Your task to perform on an android device: Search for Italian restaurants on Maps Image 0: 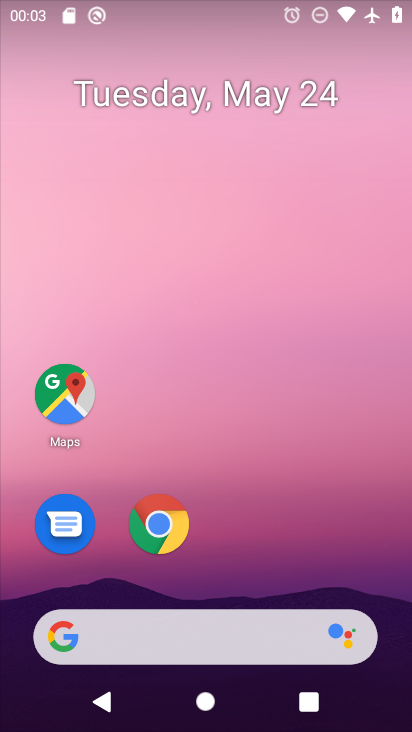
Step 0: click (80, 406)
Your task to perform on an android device: Search for Italian restaurants on Maps Image 1: 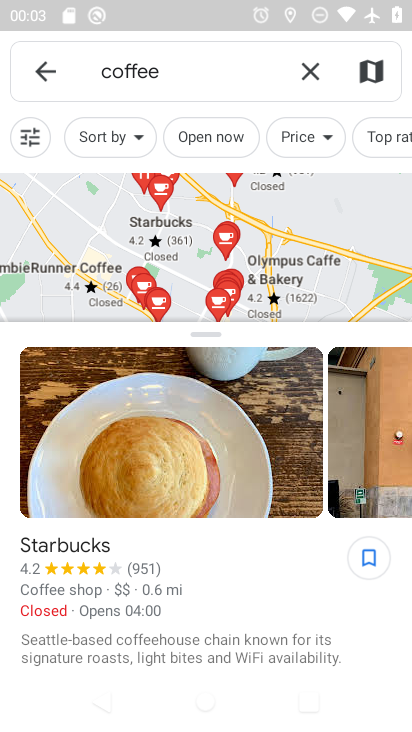
Step 1: click (319, 63)
Your task to perform on an android device: Search for Italian restaurants on Maps Image 2: 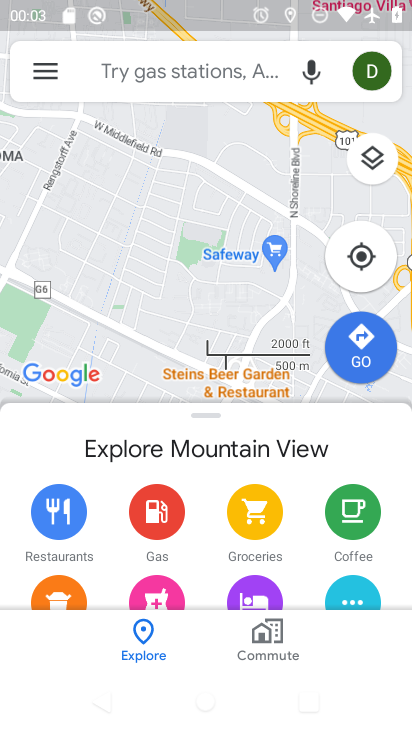
Step 2: click (185, 79)
Your task to perform on an android device: Search for Italian restaurants on Maps Image 3: 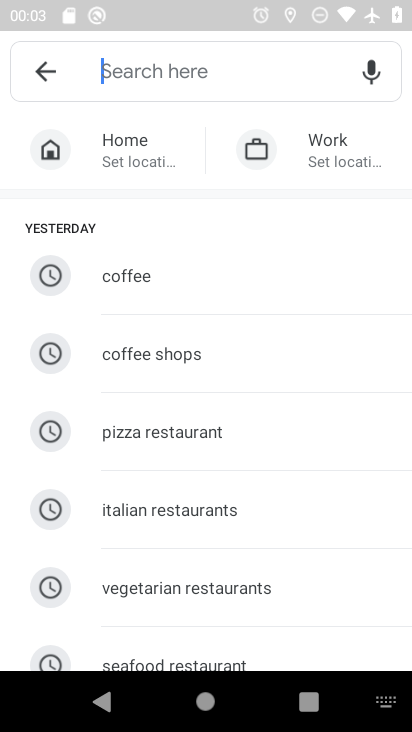
Step 3: click (158, 499)
Your task to perform on an android device: Search for Italian restaurants on Maps Image 4: 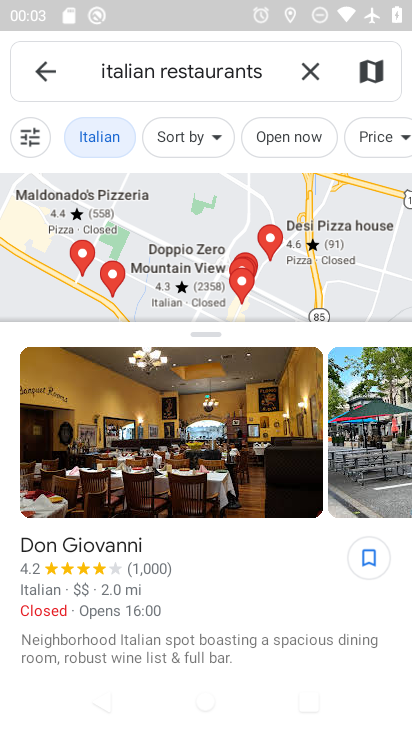
Step 4: task complete